Your task to perform on an android device: Toggle the flashlight Image 0: 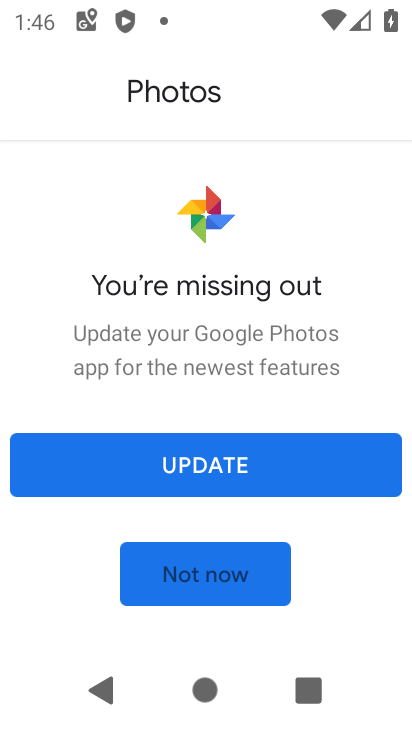
Step 0: press back button
Your task to perform on an android device: Toggle the flashlight Image 1: 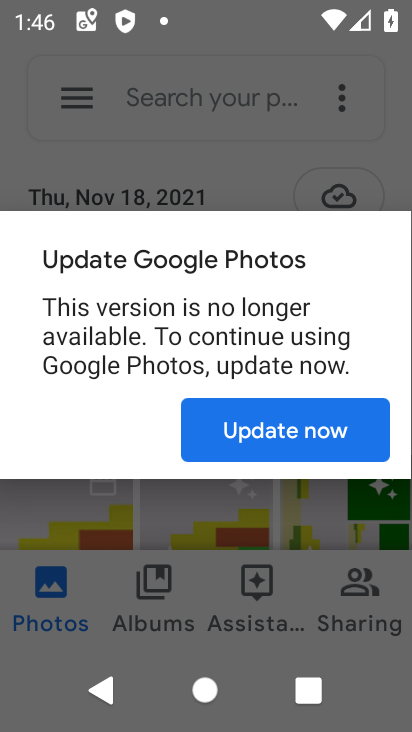
Step 1: task complete